Your task to perform on an android device: Search for a new lawnmower on Lowes.com Image 0: 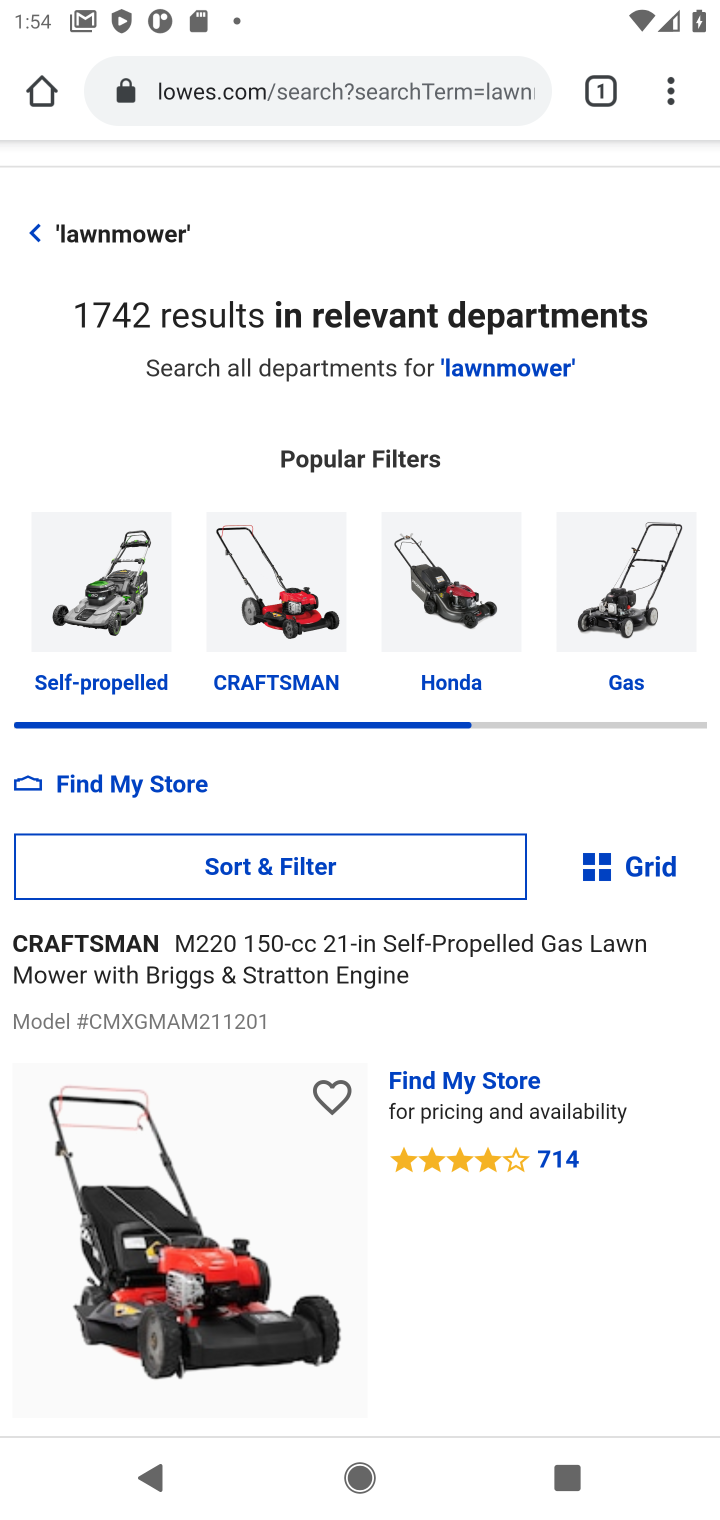
Step 0: task complete